Your task to perform on an android device: open app "AliExpress" (install if not already installed) and enter user name: "orangutan@inbox.com" and password: "Lyons" Image 0: 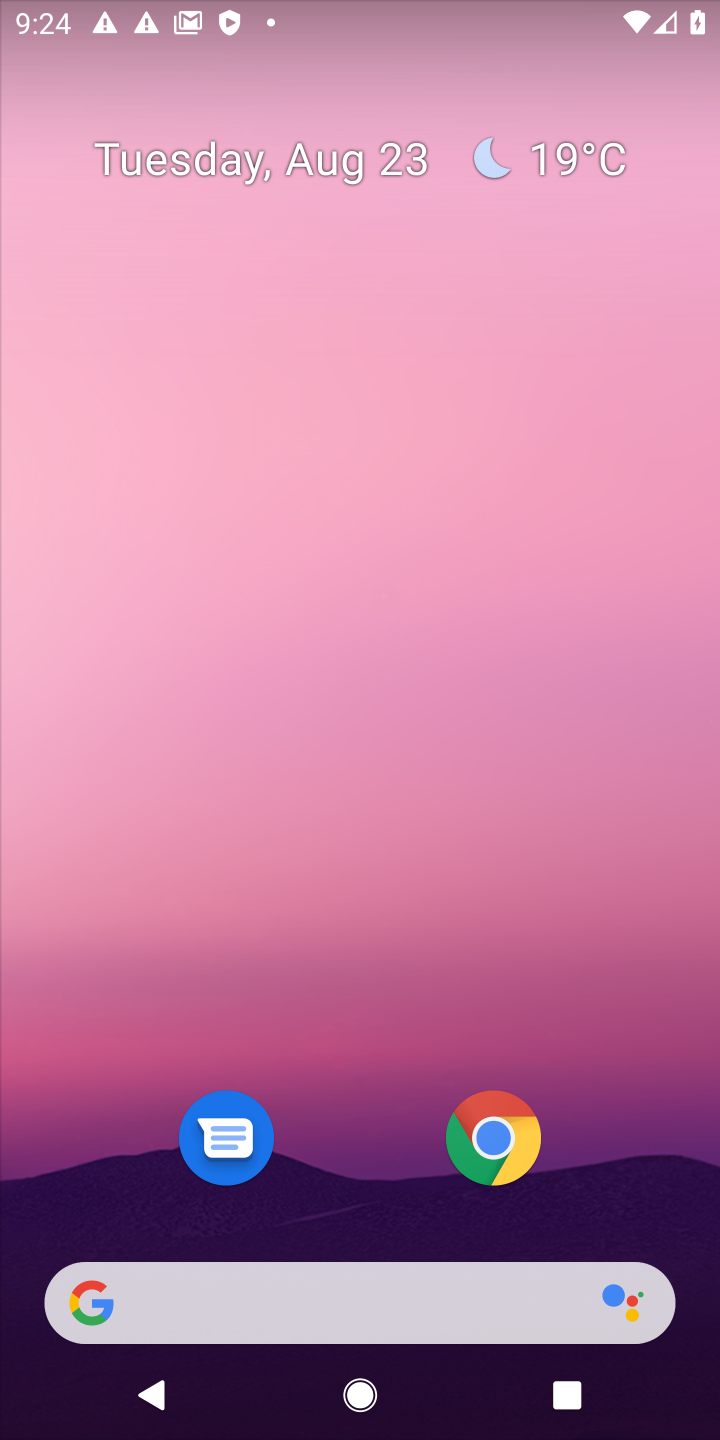
Step 0: press home button
Your task to perform on an android device: open app "AliExpress" (install if not already installed) and enter user name: "orangutan@inbox.com" and password: "Lyons" Image 1: 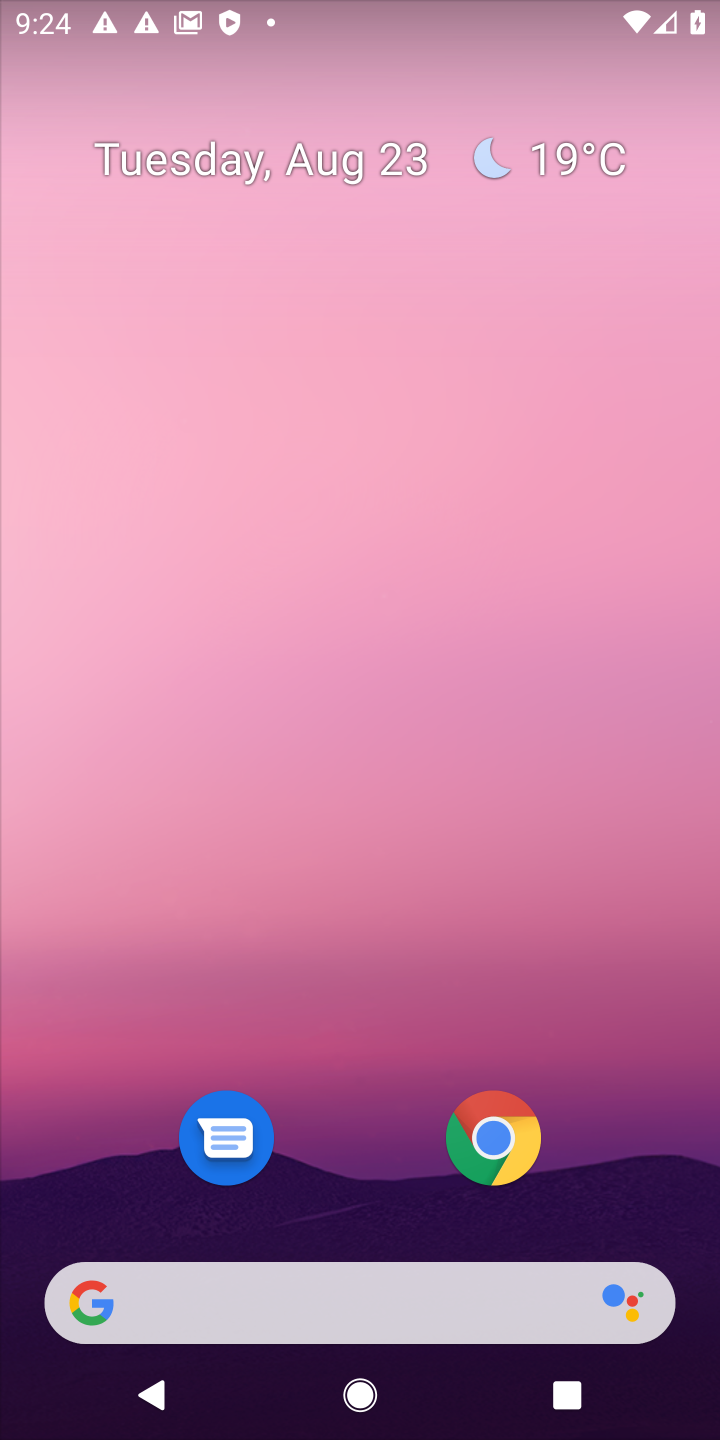
Step 1: drag from (499, 701) to (618, 285)
Your task to perform on an android device: open app "AliExpress" (install if not already installed) and enter user name: "orangutan@inbox.com" and password: "Lyons" Image 2: 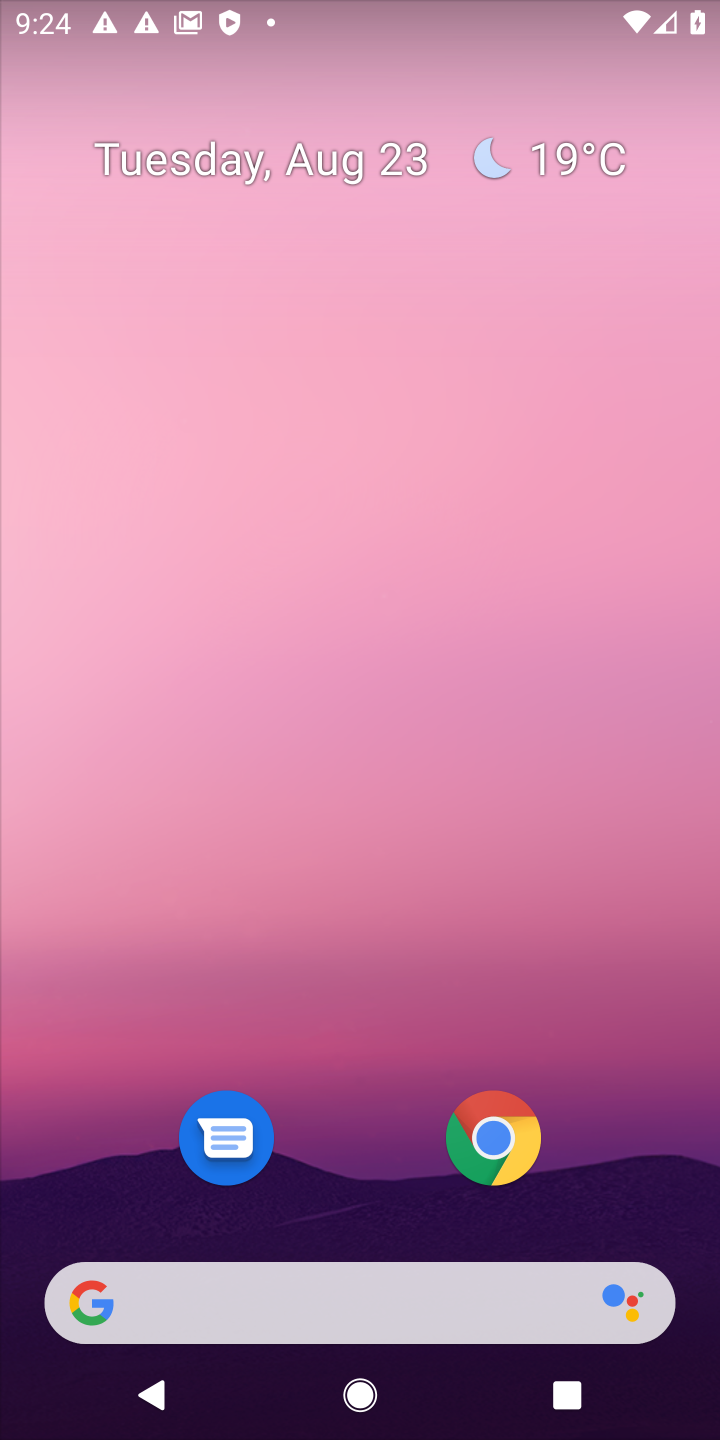
Step 2: drag from (386, 1105) to (589, 234)
Your task to perform on an android device: open app "AliExpress" (install if not already installed) and enter user name: "orangutan@inbox.com" and password: "Lyons" Image 3: 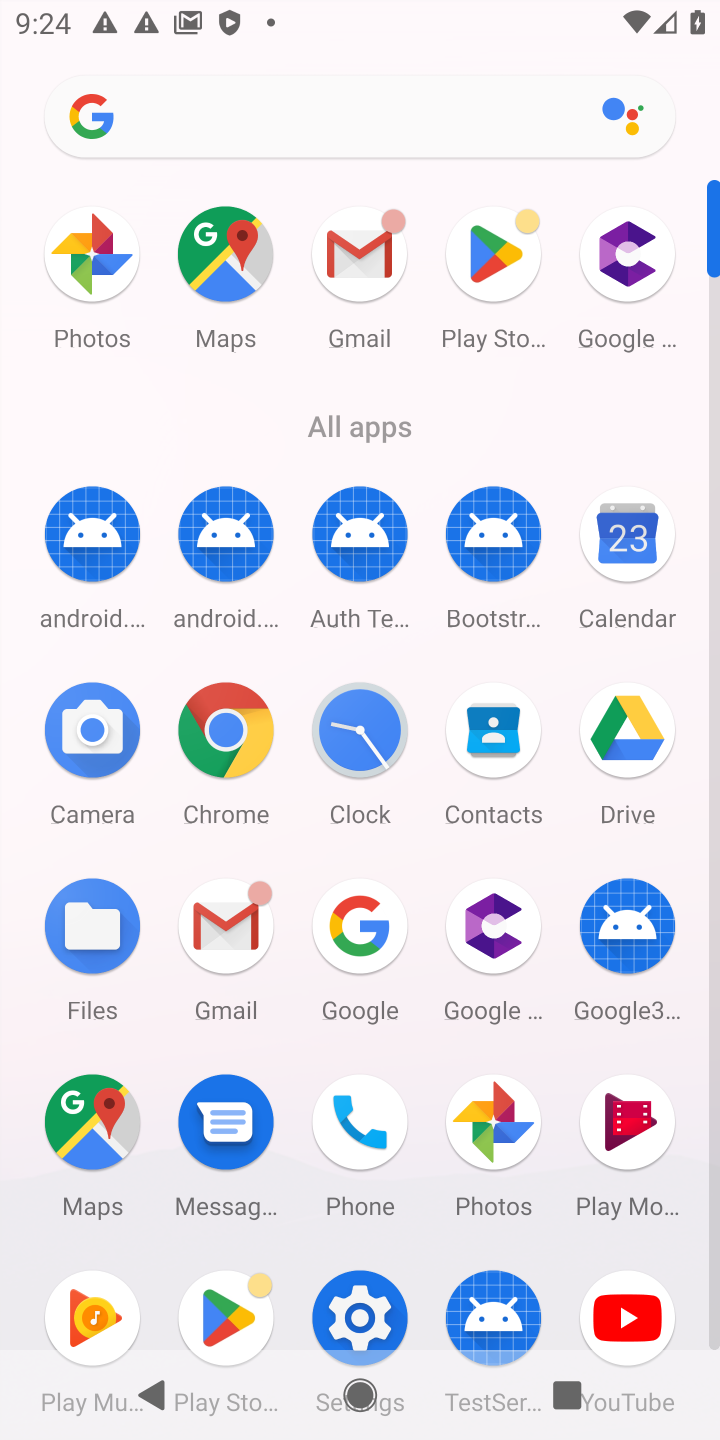
Step 3: drag from (226, 1322) to (443, 814)
Your task to perform on an android device: open app "AliExpress" (install if not already installed) and enter user name: "orangutan@inbox.com" and password: "Lyons" Image 4: 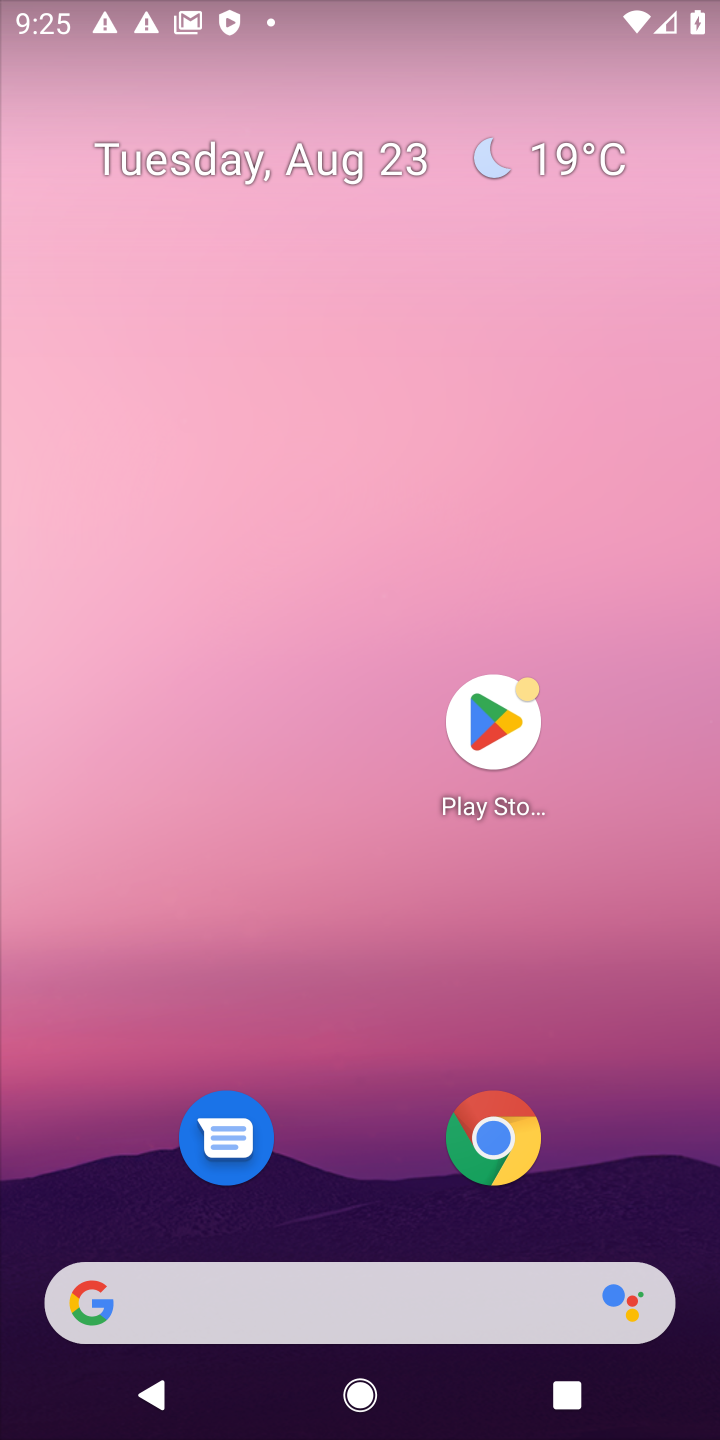
Step 4: click (497, 716)
Your task to perform on an android device: open app "AliExpress" (install if not already installed) and enter user name: "orangutan@inbox.com" and password: "Lyons" Image 5: 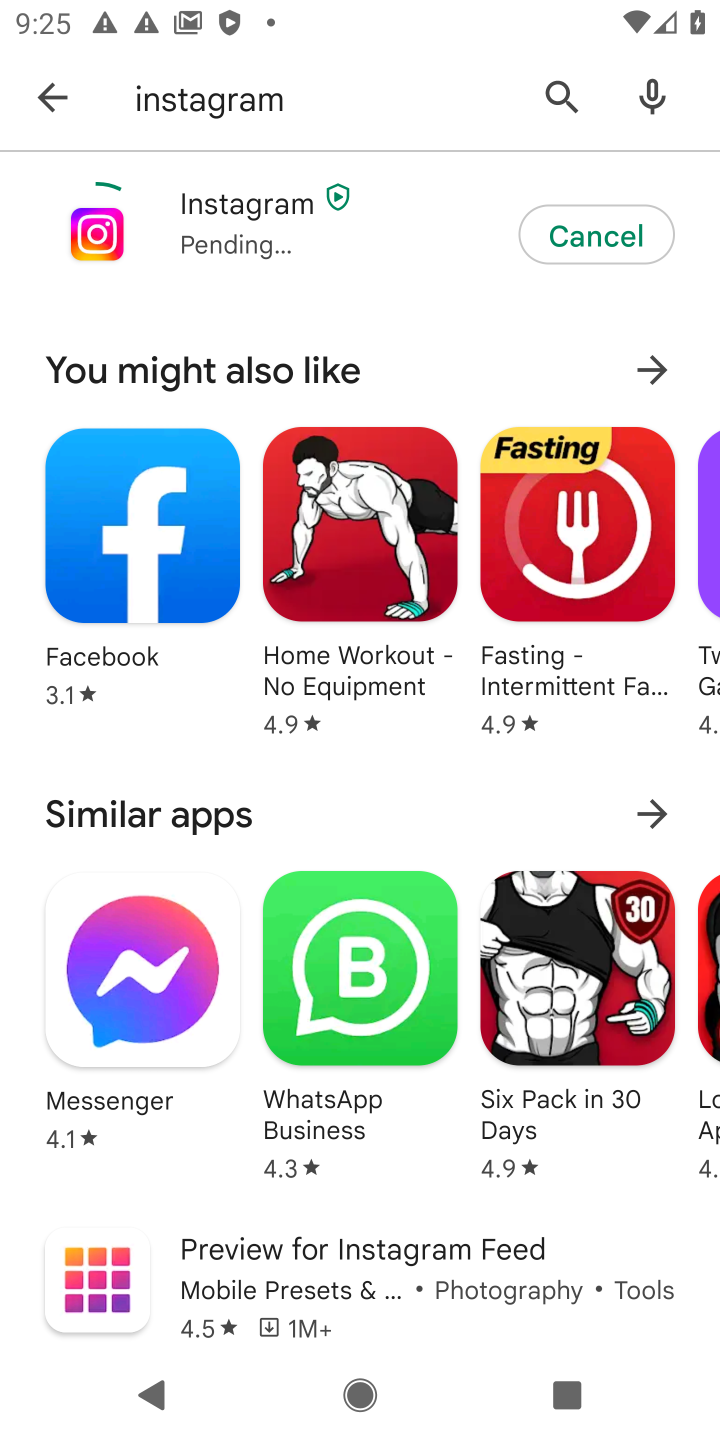
Step 5: click (548, 87)
Your task to perform on an android device: open app "AliExpress" (install if not already installed) and enter user name: "orangutan@inbox.com" and password: "Lyons" Image 6: 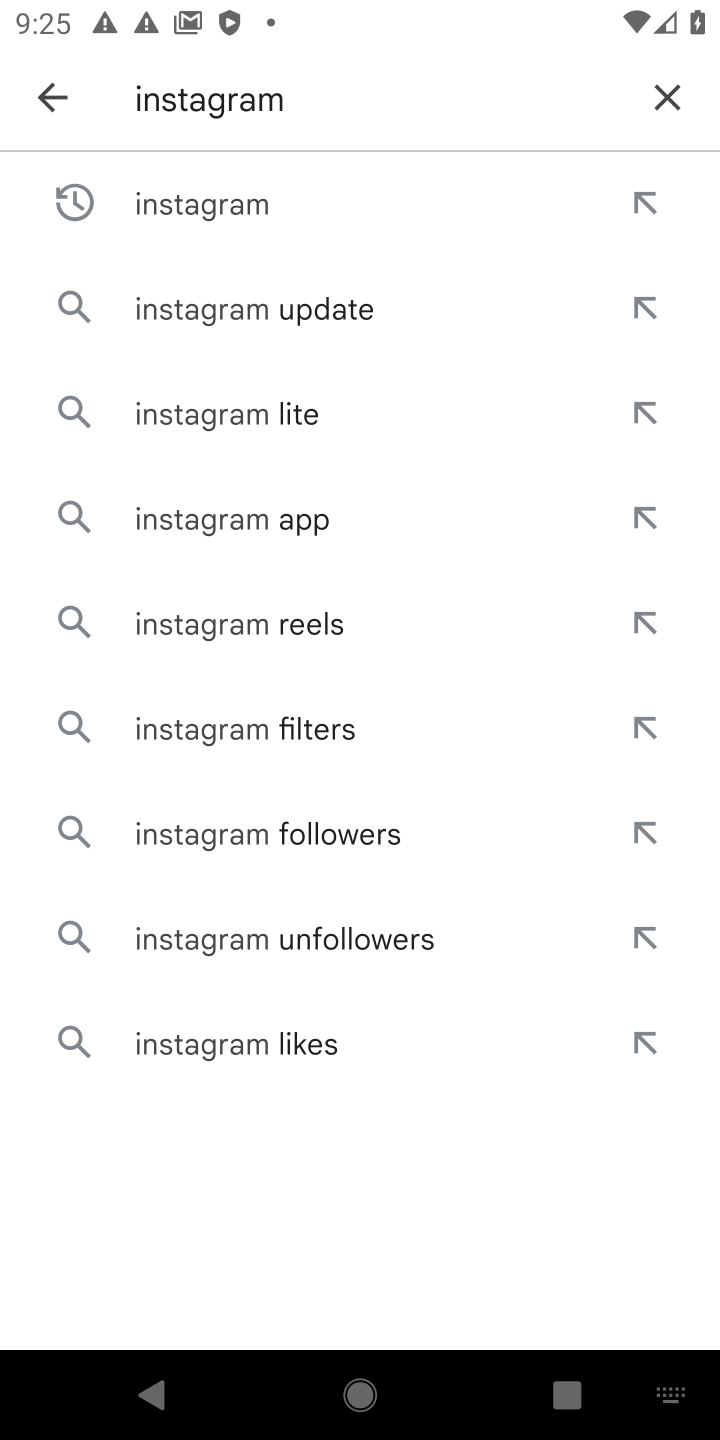
Step 6: click (668, 89)
Your task to perform on an android device: open app "AliExpress" (install if not already installed) and enter user name: "orangutan@inbox.com" and password: "Lyons" Image 7: 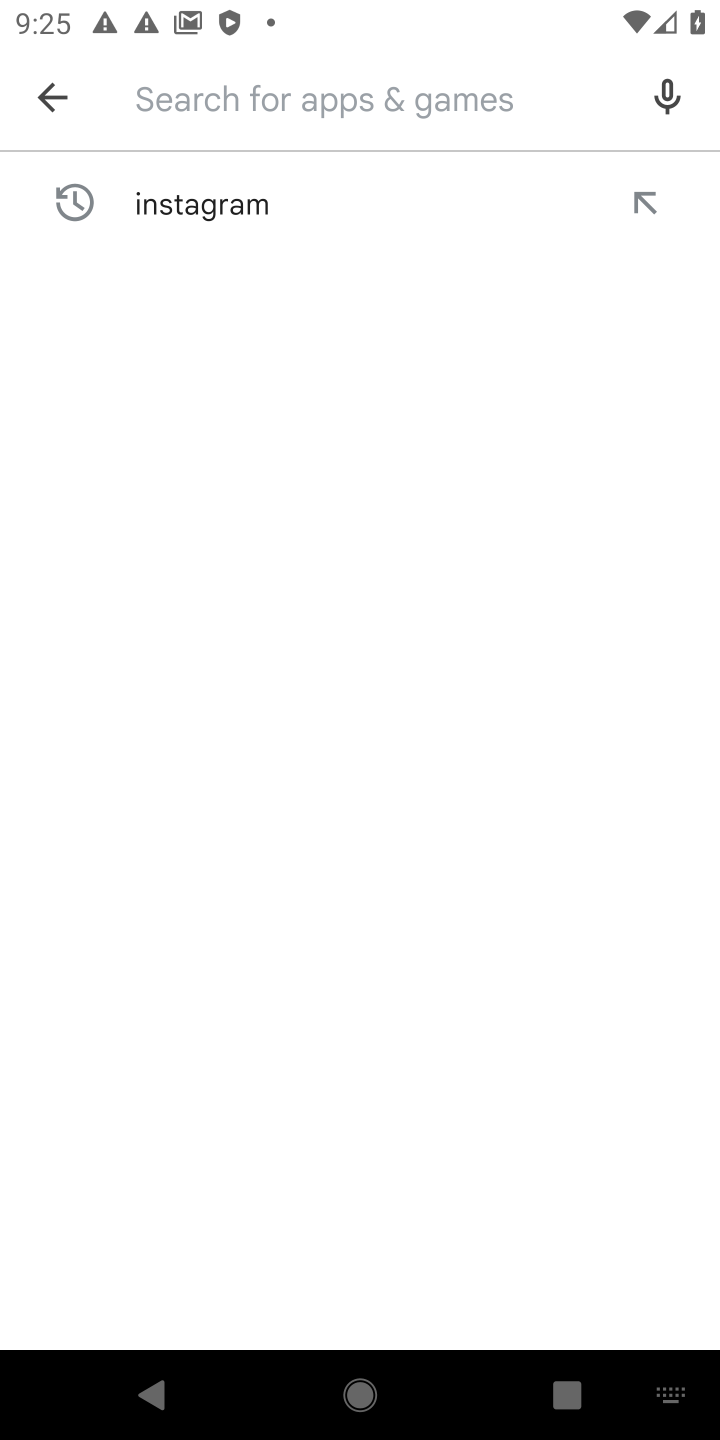
Step 7: type "AliExpress"
Your task to perform on an android device: open app "AliExpress" (install if not already installed) and enter user name: "orangutan@inbox.com" and password: "Lyons" Image 8: 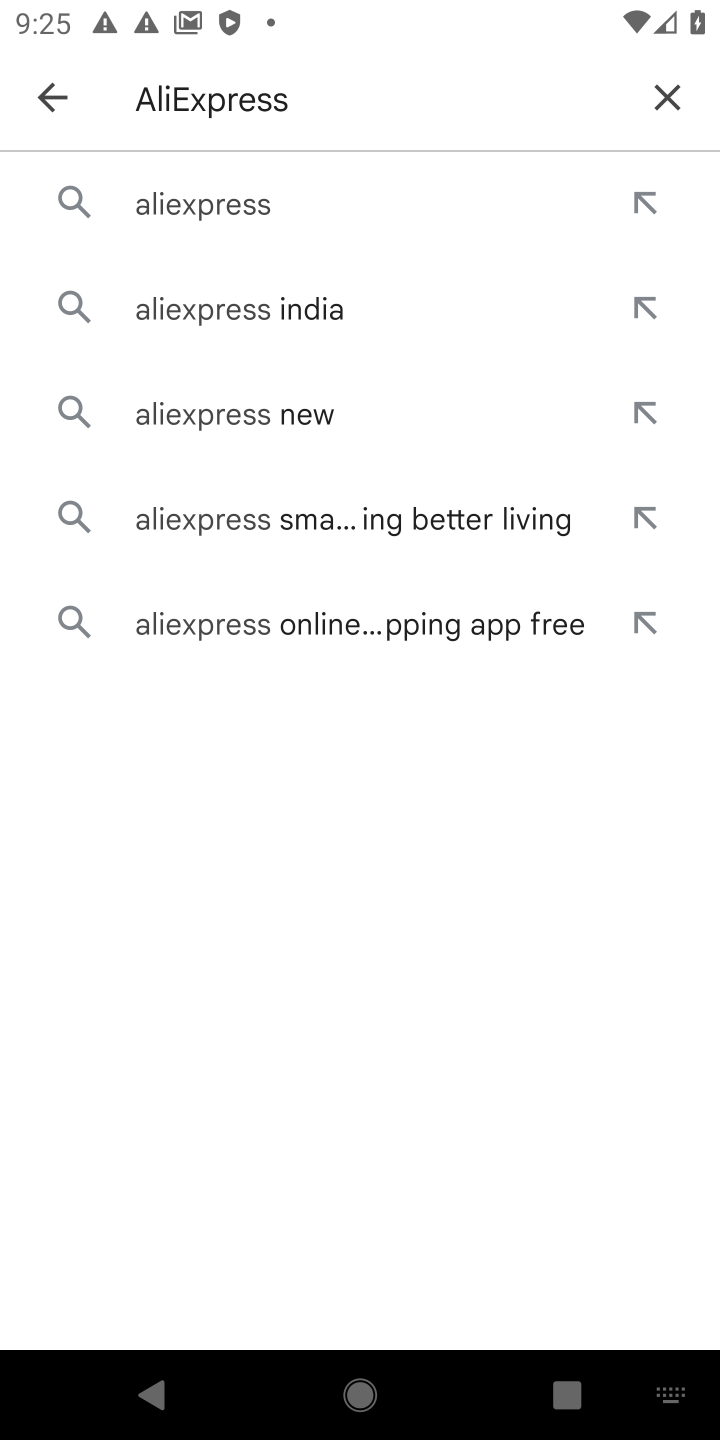
Step 8: click (194, 204)
Your task to perform on an android device: open app "AliExpress" (install if not already installed) and enter user name: "orangutan@inbox.com" and password: "Lyons" Image 9: 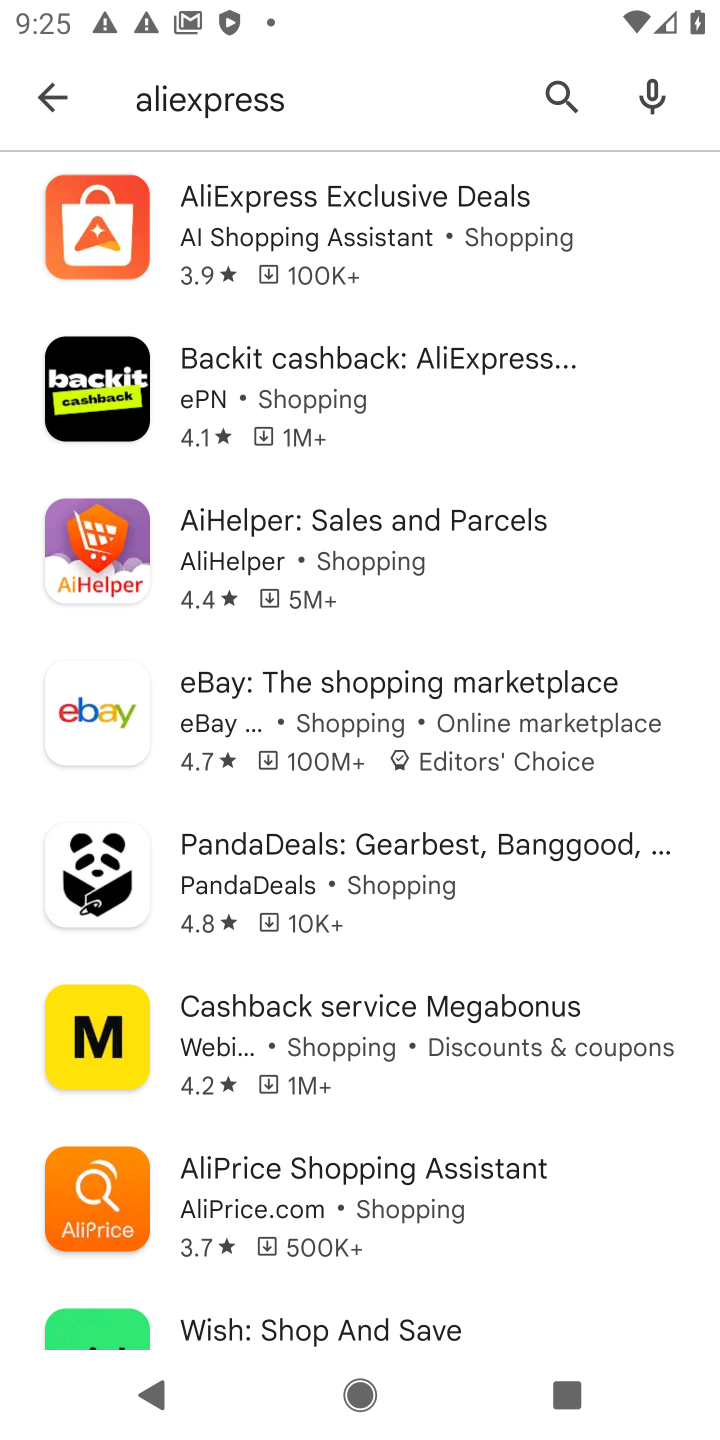
Step 9: click (375, 242)
Your task to perform on an android device: open app "AliExpress" (install if not already installed) and enter user name: "orangutan@inbox.com" and password: "Lyons" Image 10: 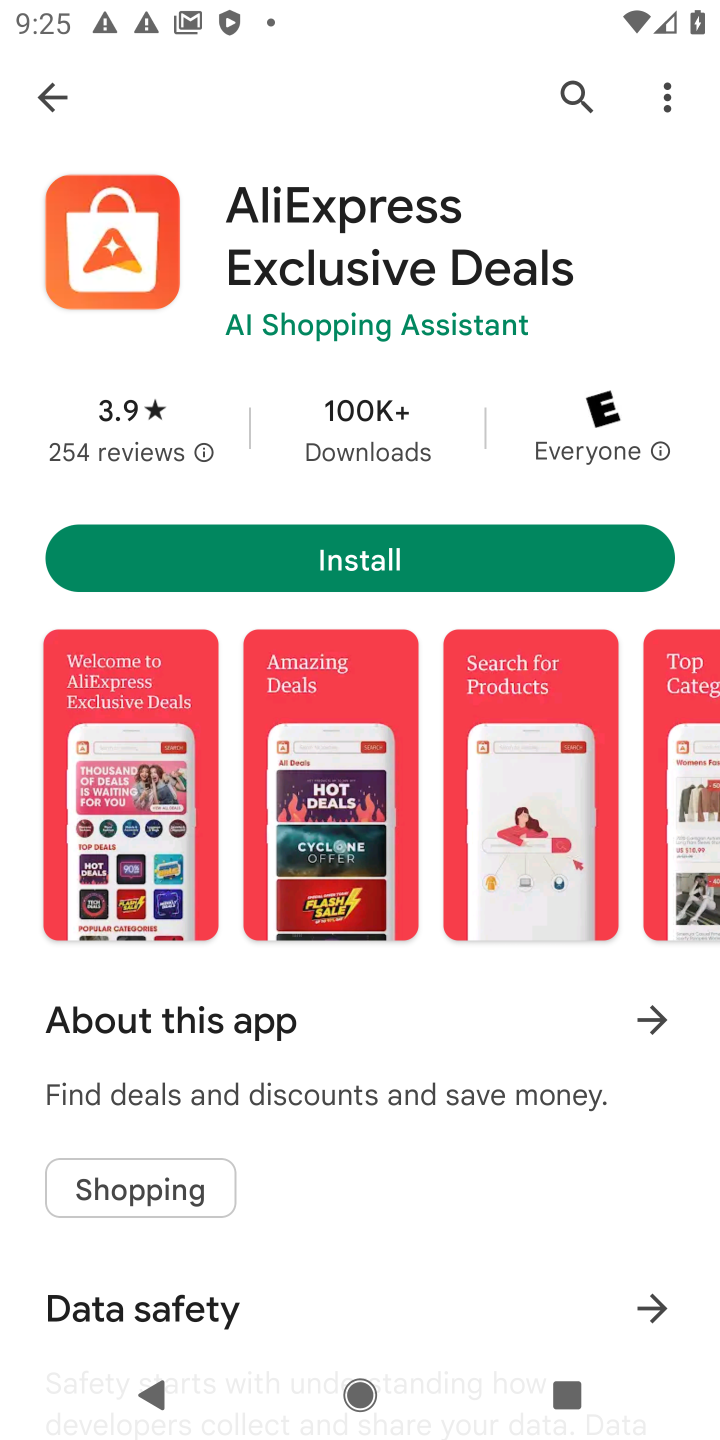
Step 10: click (392, 549)
Your task to perform on an android device: open app "AliExpress" (install if not already installed) and enter user name: "orangutan@inbox.com" and password: "Lyons" Image 11: 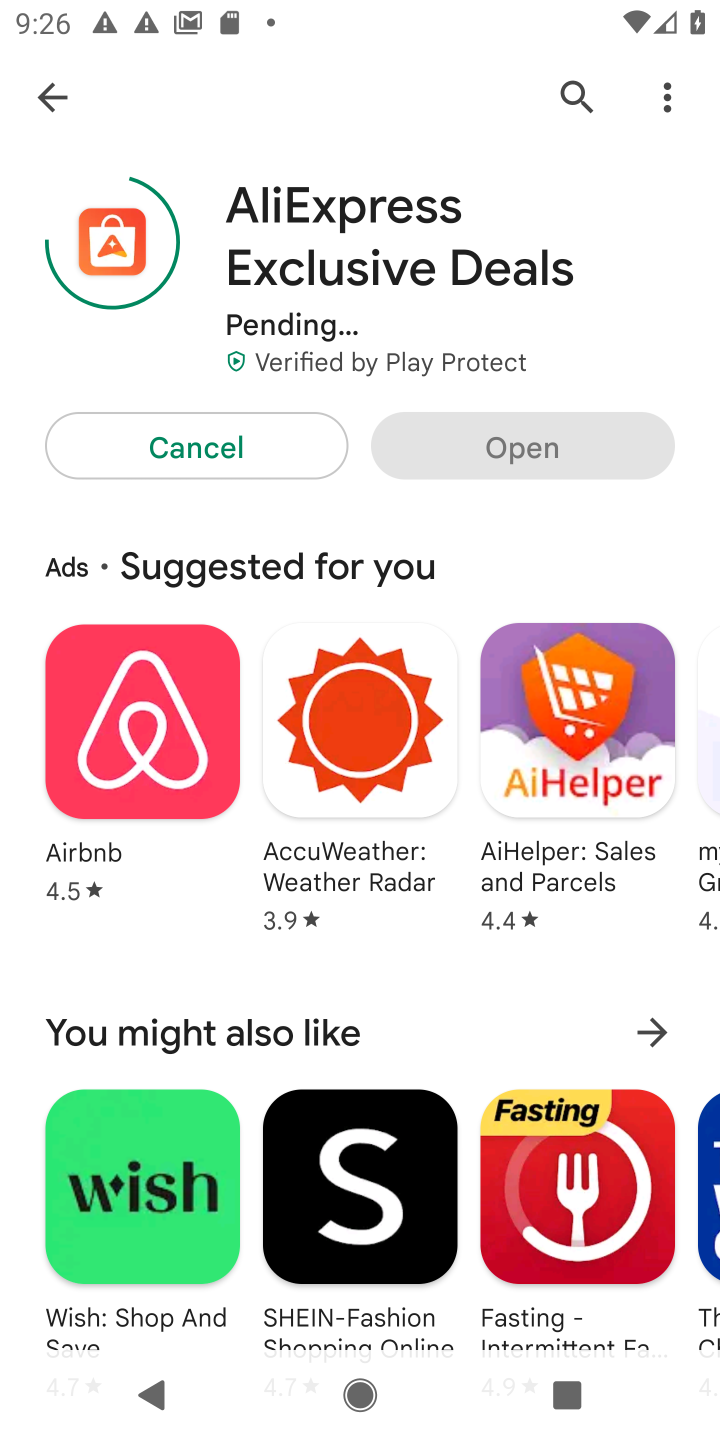
Step 11: task complete